Your task to perform on an android device: Open Chrome and go to settings Image 0: 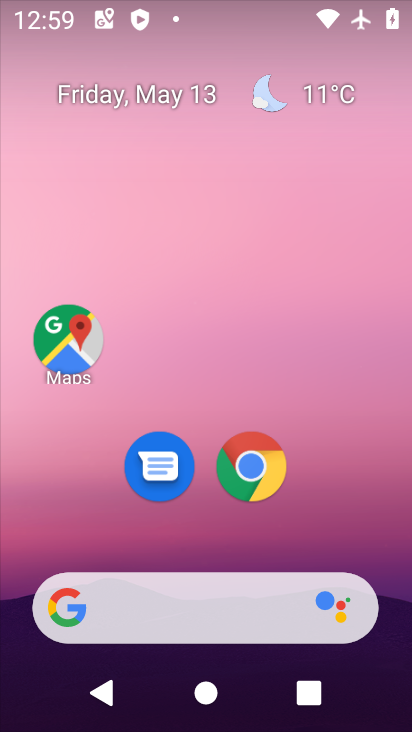
Step 0: click (234, 452)
Your task to perform on an android device: Open Chrome and go to settings Image 1: 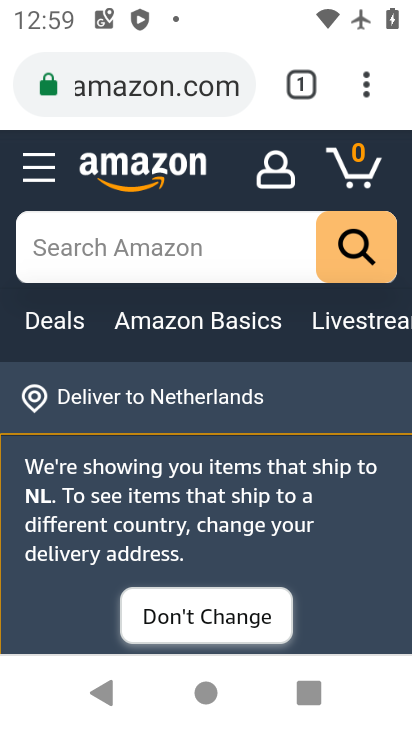
Step 1: click (361, 78)
Your task to perform on an android device: Open Chrome and go to settings Image 2: 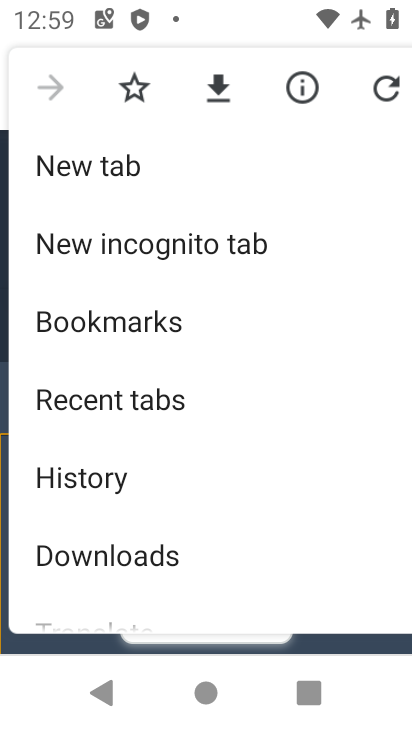
Step 2: drag from (143, 591) to (222, 311)
Your task to perform on an android device: Open Chrome and go to settings Image 3: 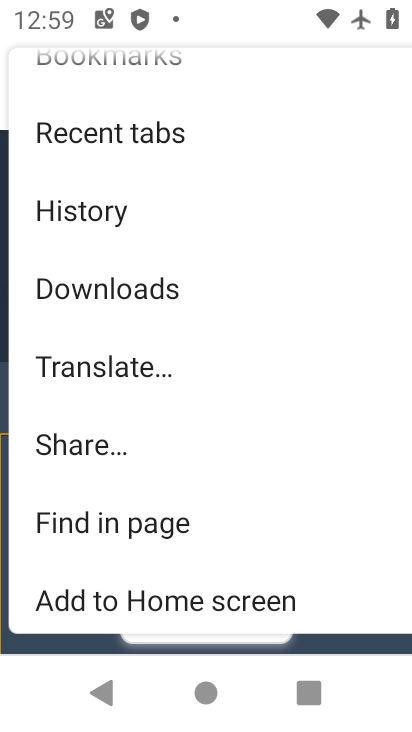
Step 3: drag from (205, 526) to (257, 215)
Your task to perform on an android device: Open Chrome and go to settings Image 4: 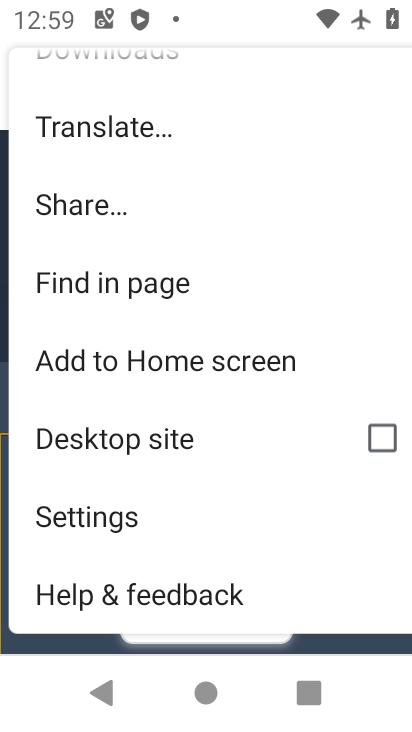
Step 4: click (162, 519)
Your task to perform on an android device: Open Chrome and go to settings Image 5: 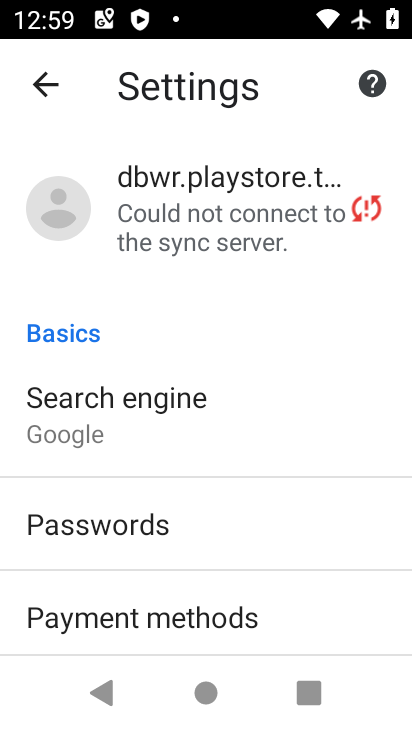
Step 5: task complete